Your task to perform on an android device: Show the shopping cart on ebay. Add "bose soundlink" to the cart on ebay, then select checkout. Image 0: 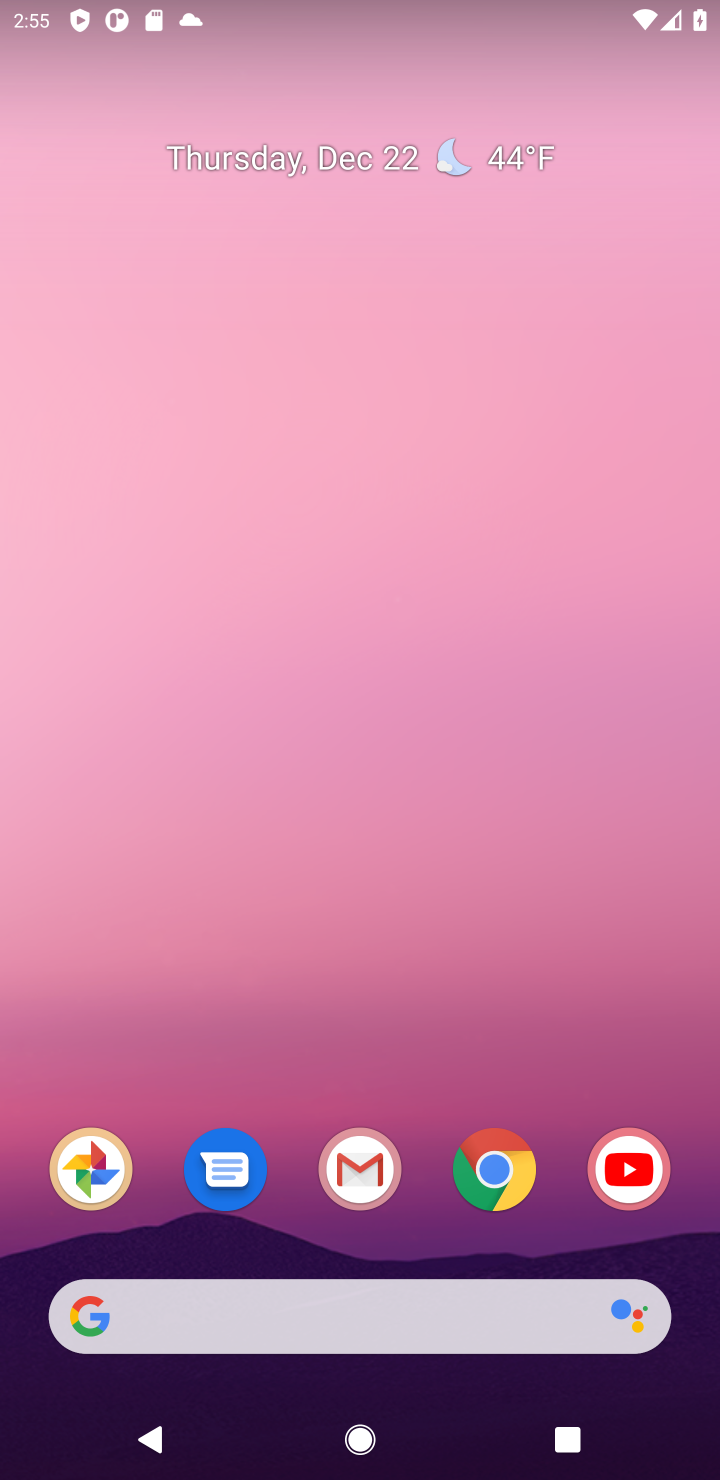
Step 0: click (505, 1173)
Your task to perform on an android device: Show the shopping cart on ebay. Add "bose soundlink" to the cart on ebay, then select checkout. Image 1: 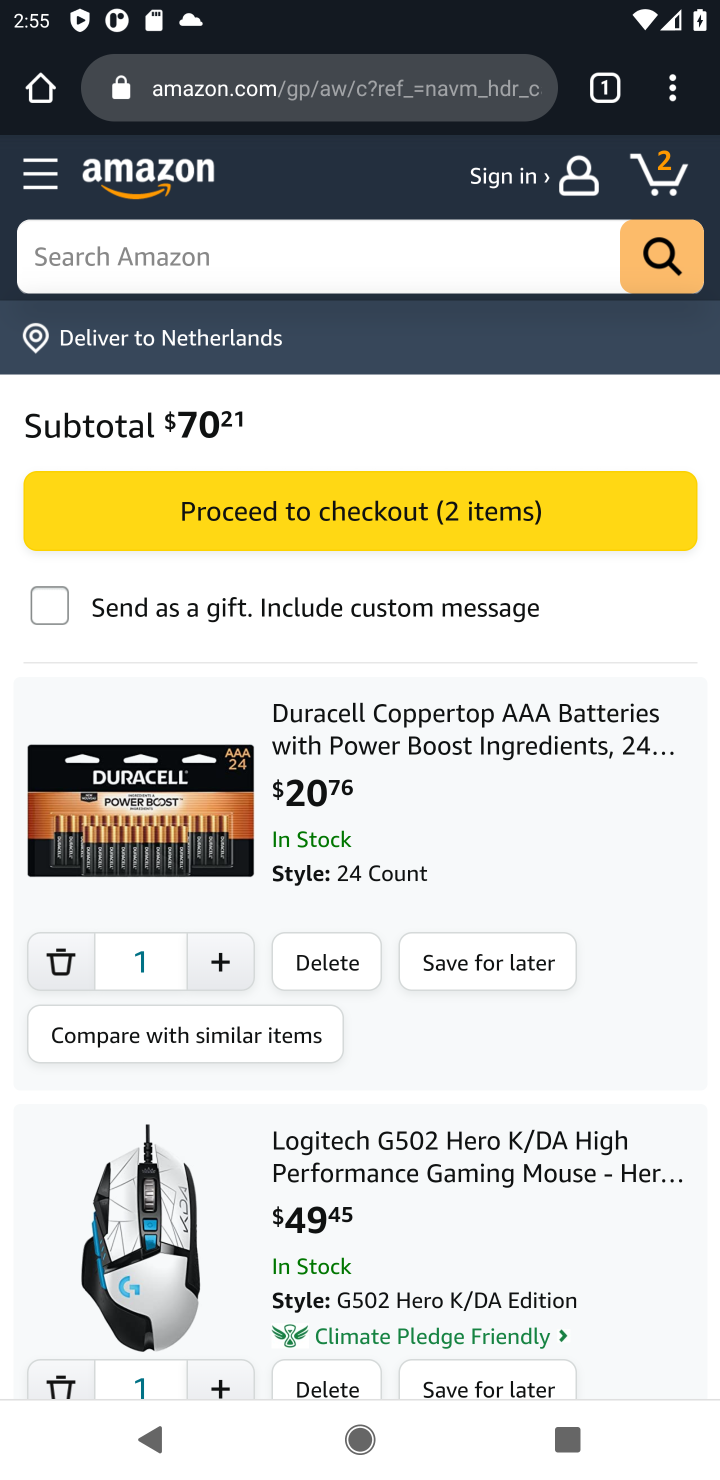
Step 1: click (238, 91)
Your task to perform on an android device: Show the shopping cart on ebay. Add "bose soundlink" to the cart on ebay, then select checkout. Image 2: 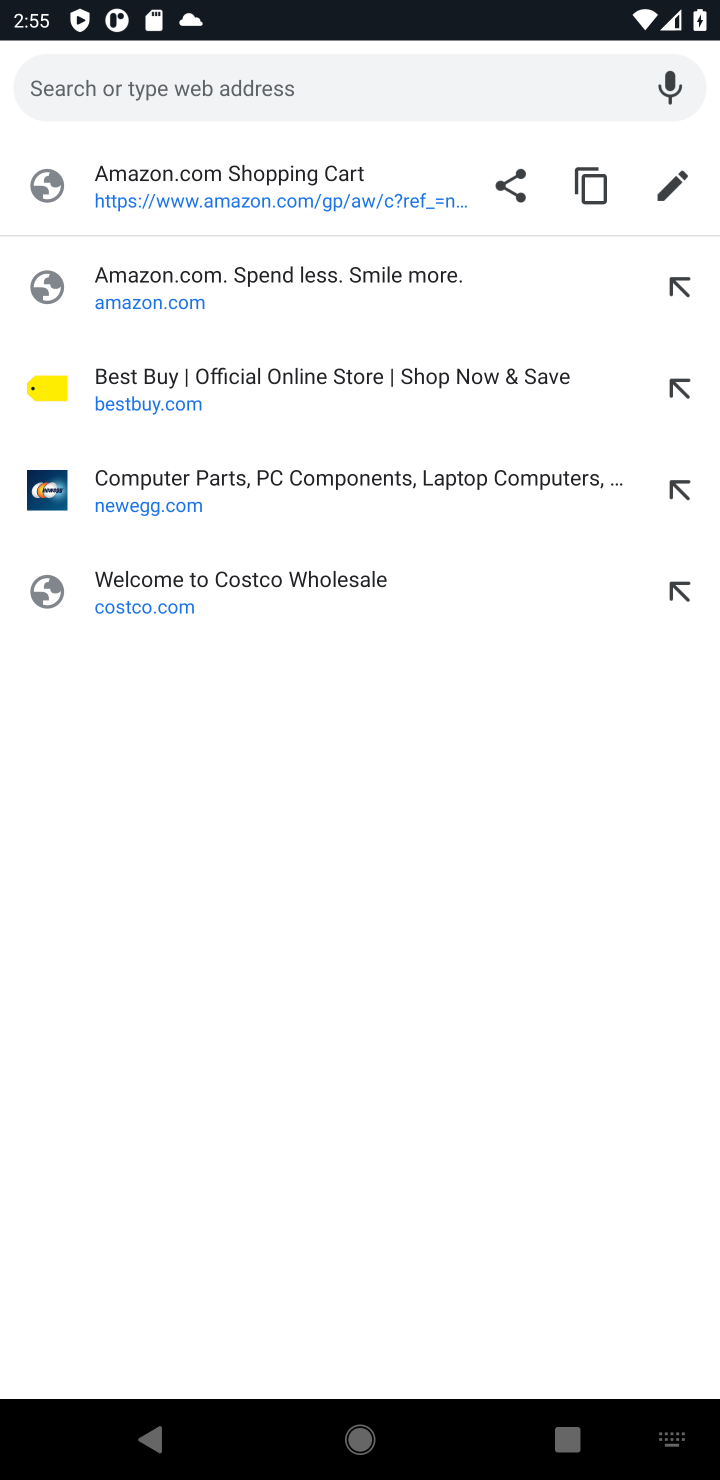
Step 2: type "ebay.com"
Your task to perform on an android device: Show the shopping cart on ebay. Add "bose soundlink" to the cart on ebay, then select checkout. Image 3: 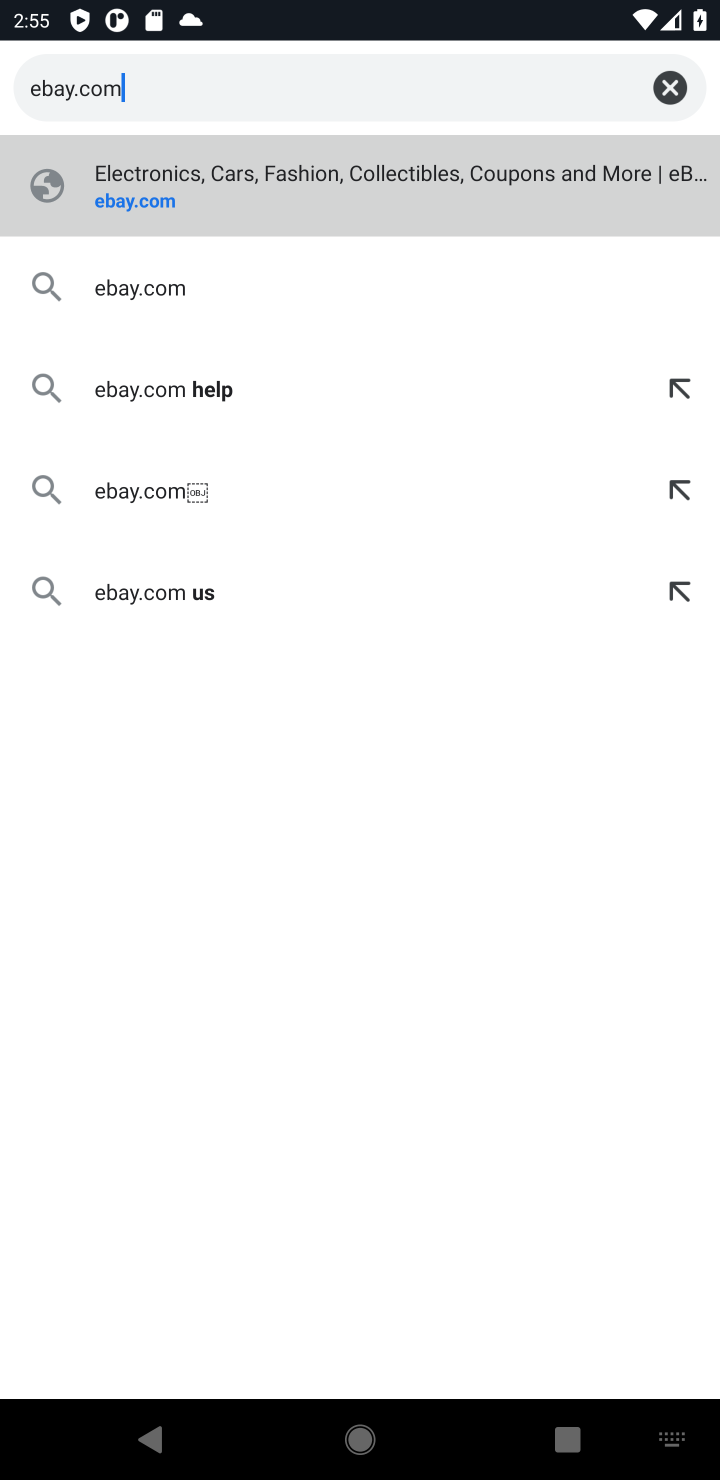
Step 3: click (160, 213)
Your task to perform on an android device: Show the shopping cart on ebay. Add "bose soundlink" to the cart on ebay, then select checkout. Image 4: 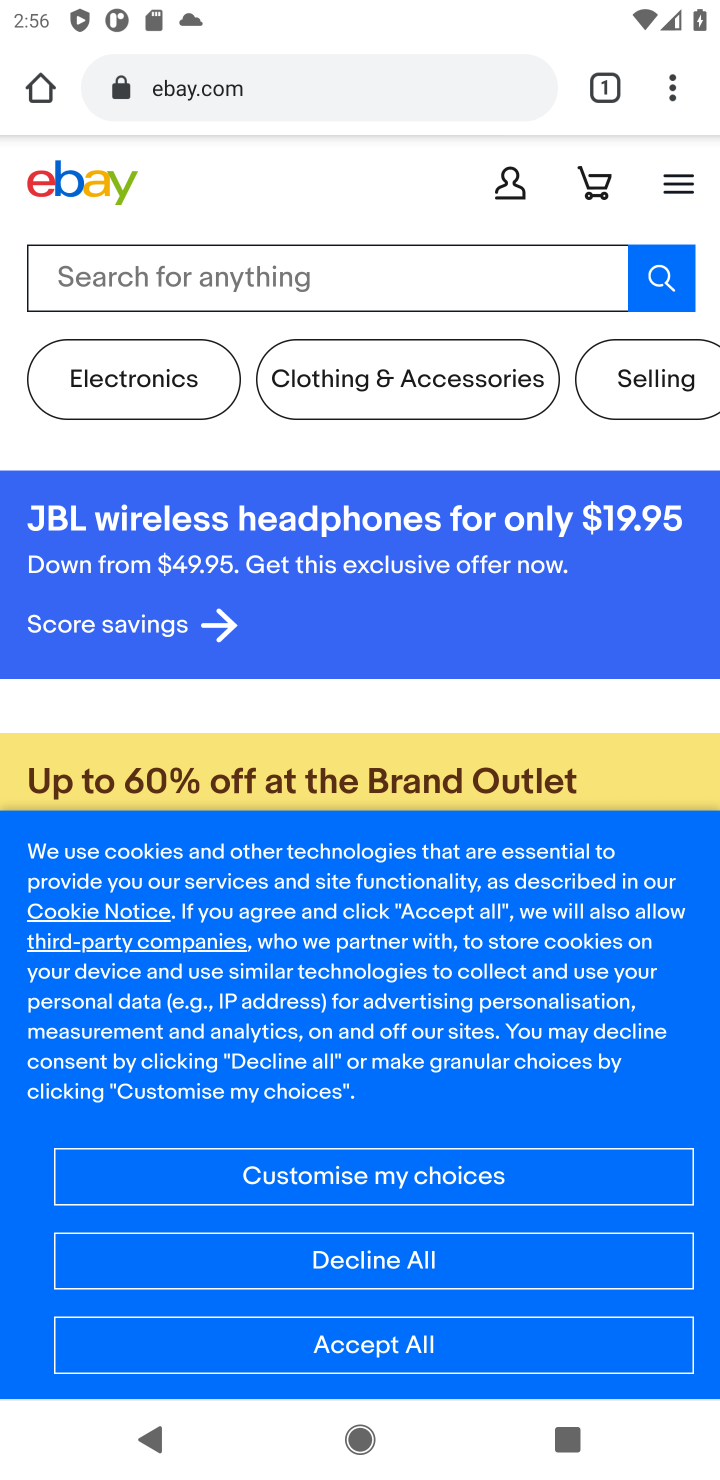
Step 4: click (591, 189)
Your task to perform on an android device: Show the shopping cart on ebay. Add "bose soundlink" to the cart on ebay, then select checkout. Image 5: 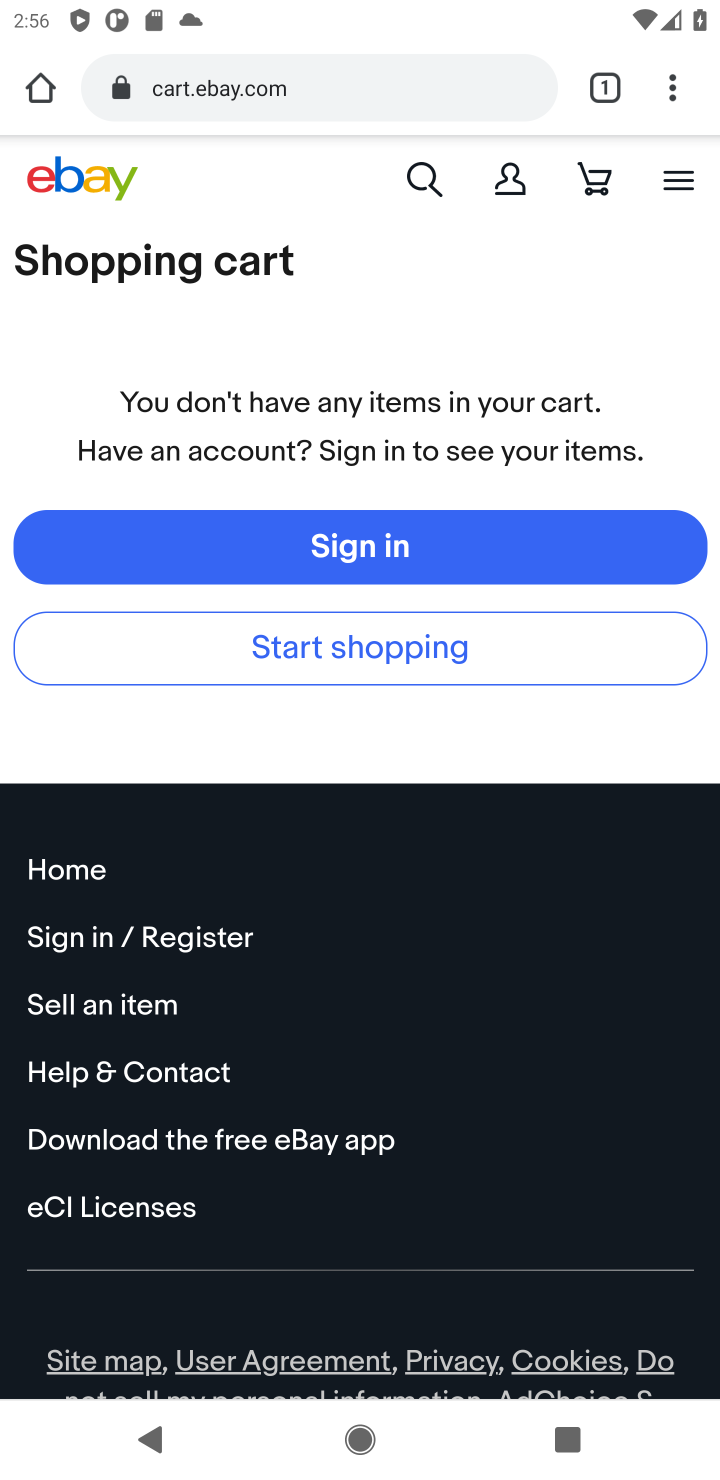
Step 5: click (425, 183)
Your task to perform on an android device: Show the shopping cart on ebay. Add "bose soundlink" to the cart on ebay, then select checkout. Image 6: 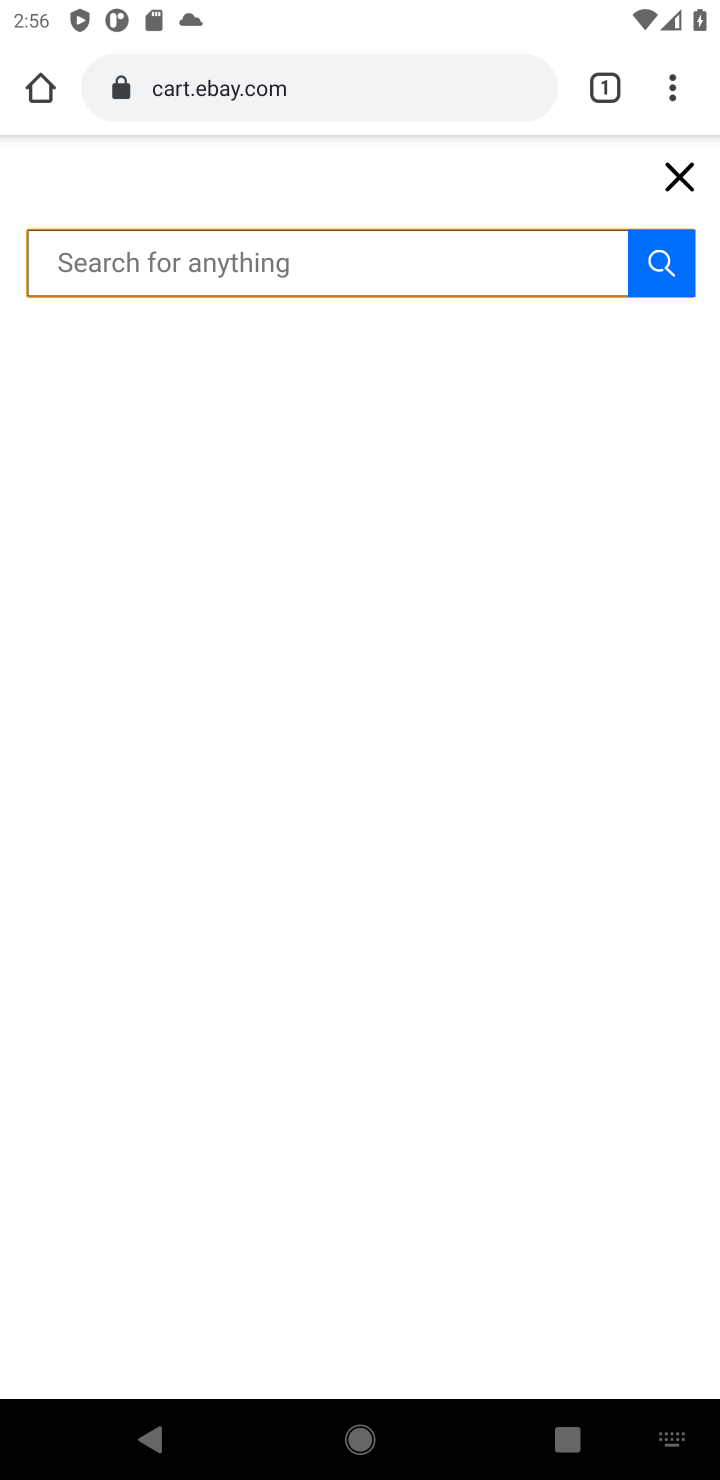
Step 6: type "bose soundlink"
Your task to perform on an android device: Show the shopping cart on ebay. Add "bose soundlink" to the cart on ebay, then select checkout. Image 7: 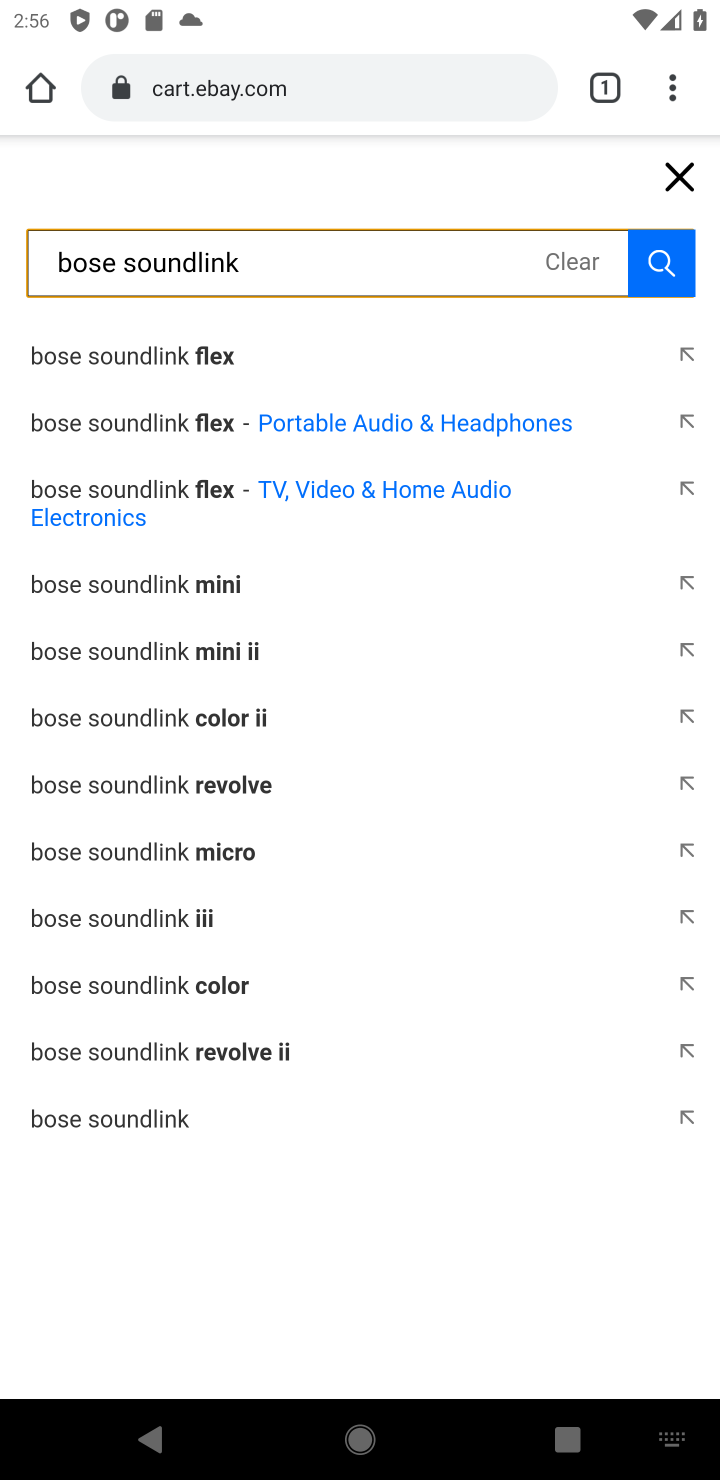
Step 7: click (118, 1128)
Your task to perform on an android device: Show the shopping cart on ebay. Add "bose soundlink" to the cart on ebay, then select checkout. Image 8: 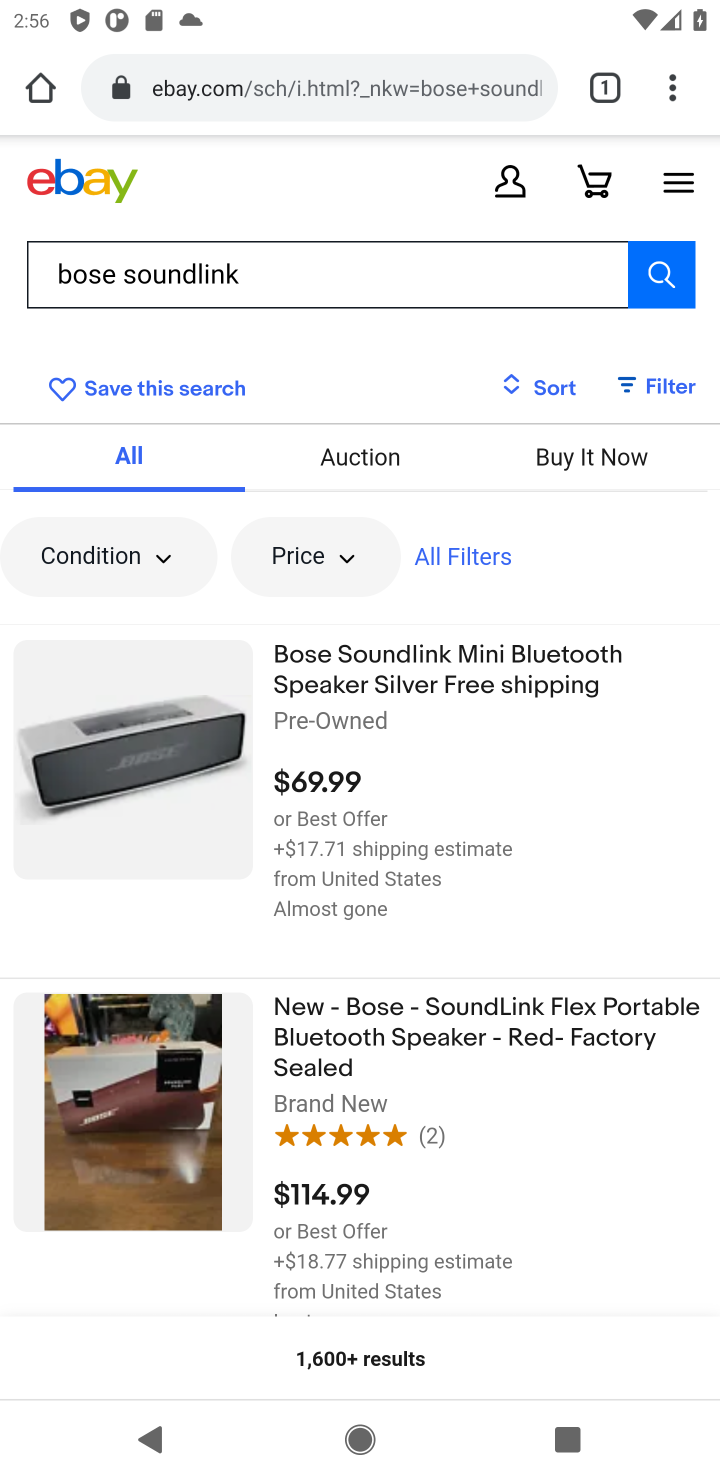
Step 8: click (354, 679)
Your task to perform on an android device: Show the shopping cart on ebay. Add "bose soundlink" to the cart on ebay, then select checkout. Image 9: 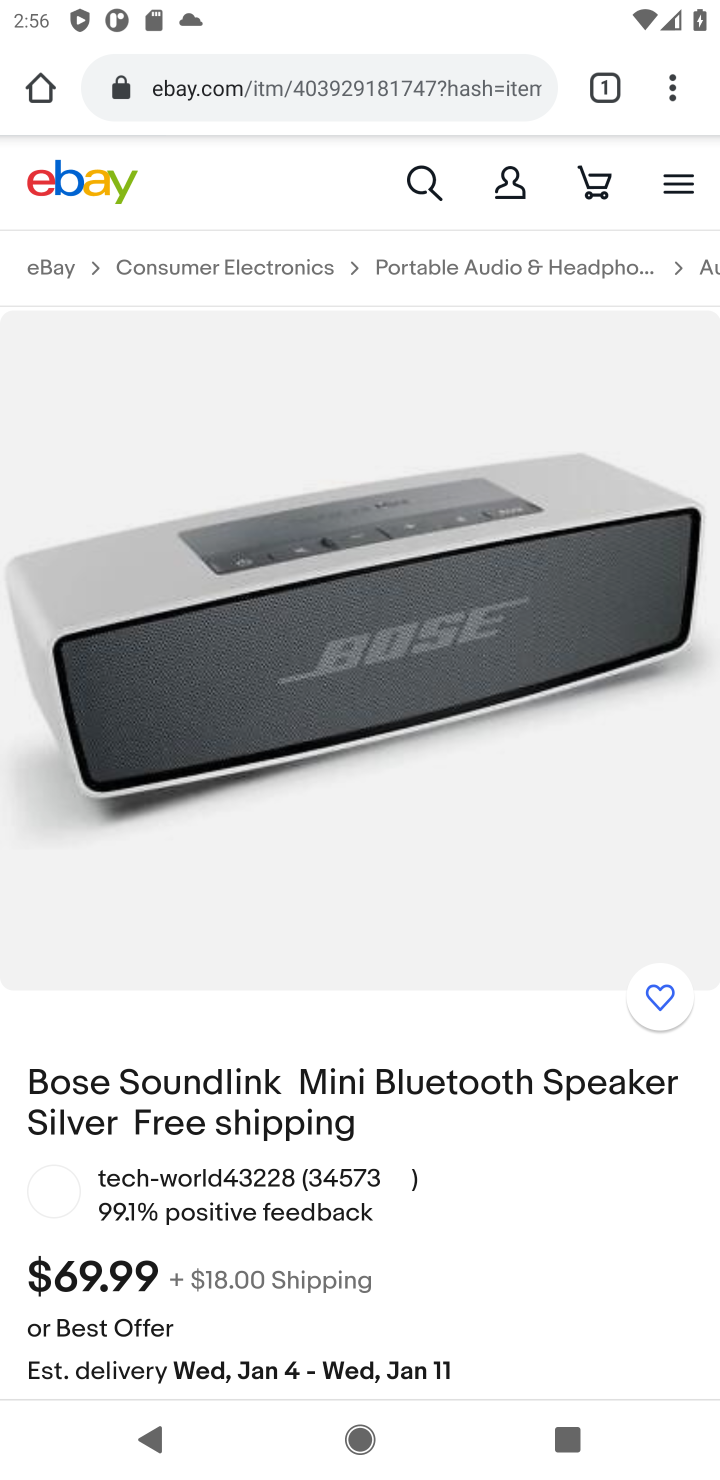
Step 9: drag from (302, 1051) to (321, 516)
Your task to perform on an android device: Show the shopping cart on ebay. Add "bose soundlink" to the cart on ebay, then select checkout. Image 10: 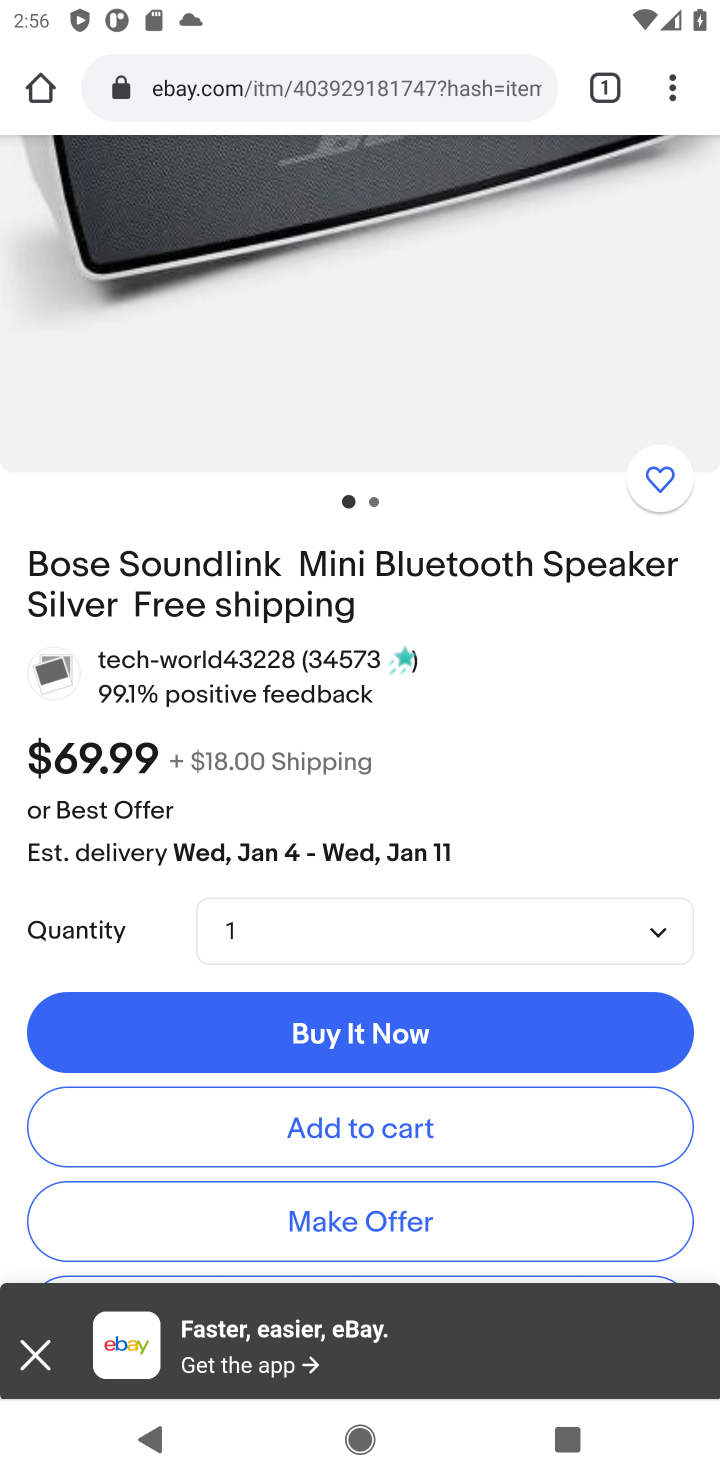
Step 10: click (332, 1126)
Your task to perform on an android device: Show the shopping cart on ebay. Add "bose soundlink" to the cart on ebay, then select checkout. Image 11: 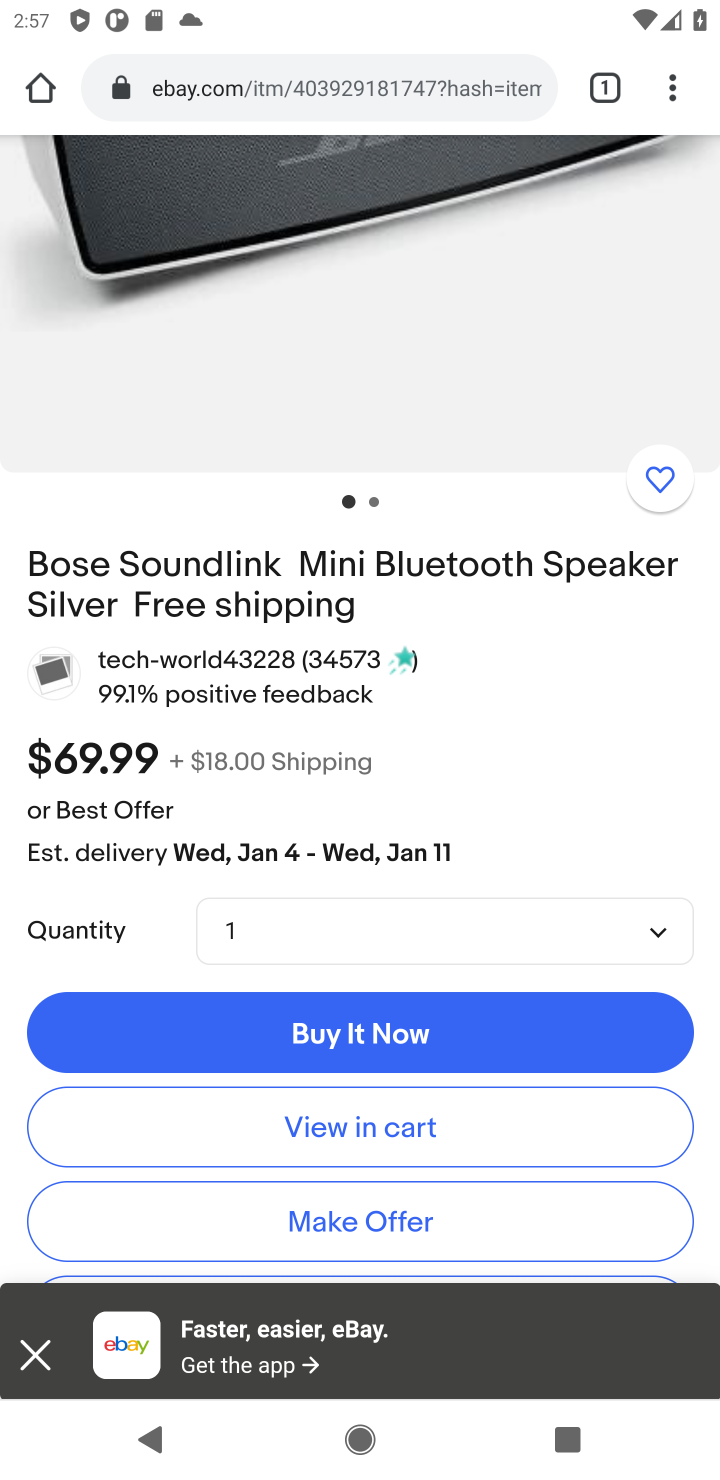
Step 11: click (332, 1126)
Your task to perform on an android device: Show the shopping cart on ebay. Add "bose soundlink" to the cart on ebay, then select checkout. Image 12: 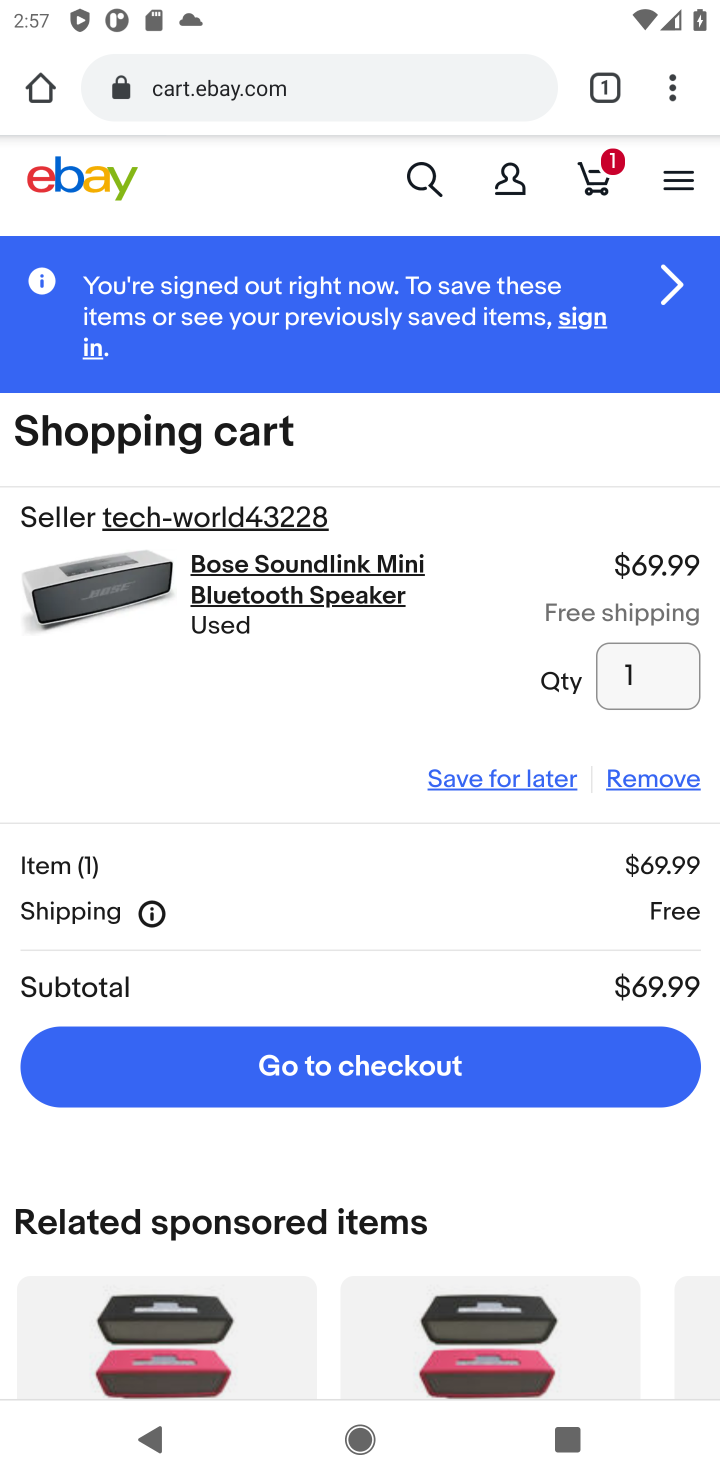
Step 12: click (338, 1090)
Your task to perform on an android device: Show the shopping cart on ebay. Add "bose soundlink" to the cart on ebay, then select checkout. Image 13: 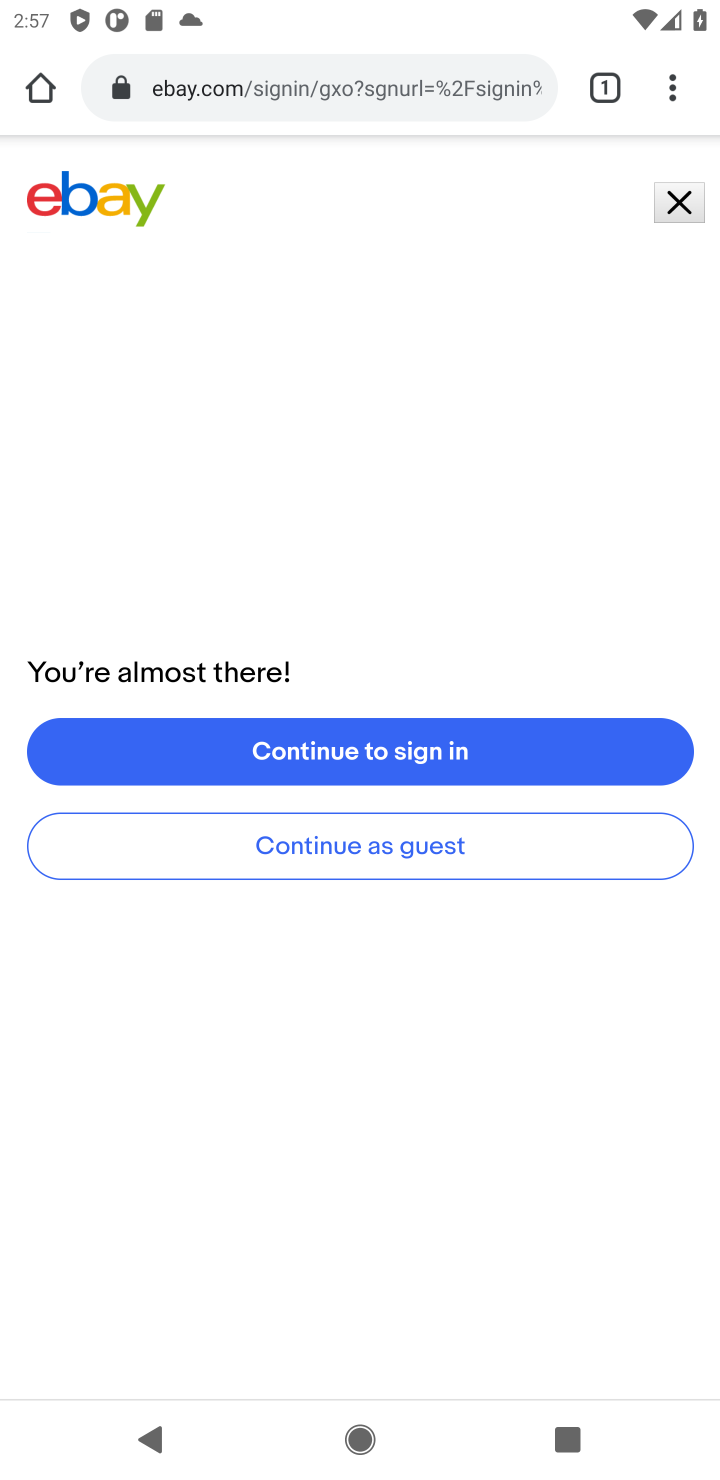
Step 13: task complete